Your task to perform on an android device: Open Chrome and go to the settings page Image 0: 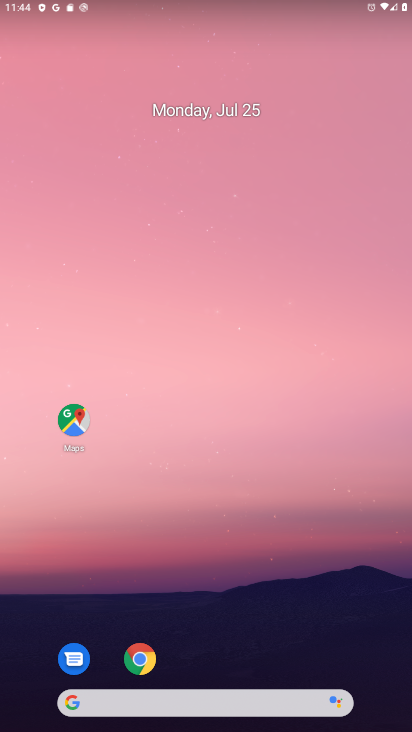
Step 0: click (140, 661)
Your task to perform on an android device: Open Chrome and go to the settings page Image 1: 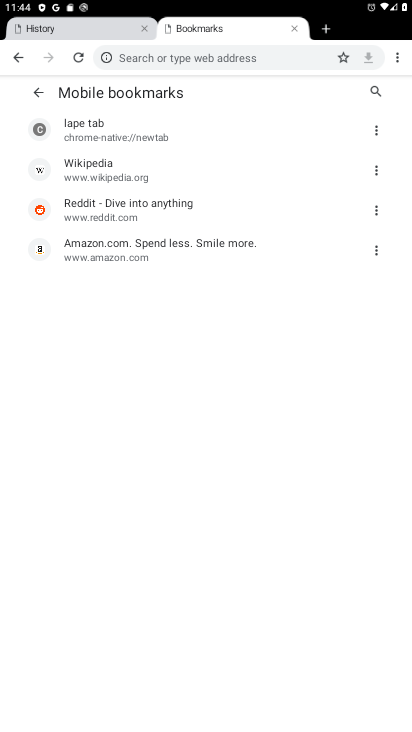
Step 1: click (397, 56)
Your task to perform on an android device: Open Chrome and go to the settings page Image 2: 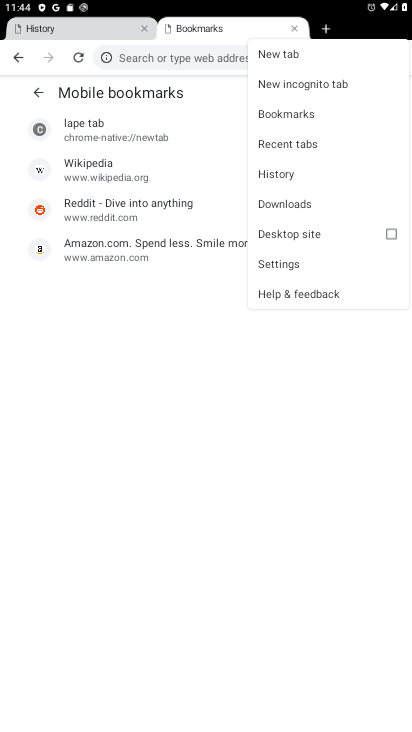
Step 2: click (284, 262)
Your task to perform on an android device: Open Chrome and go to the settings page Image 3: 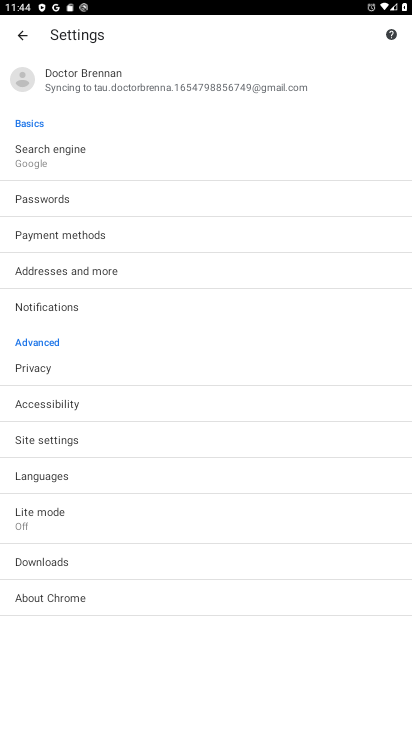
Step 3: task complete